Your task to perform on an android device: Go to Android settings Image 0: 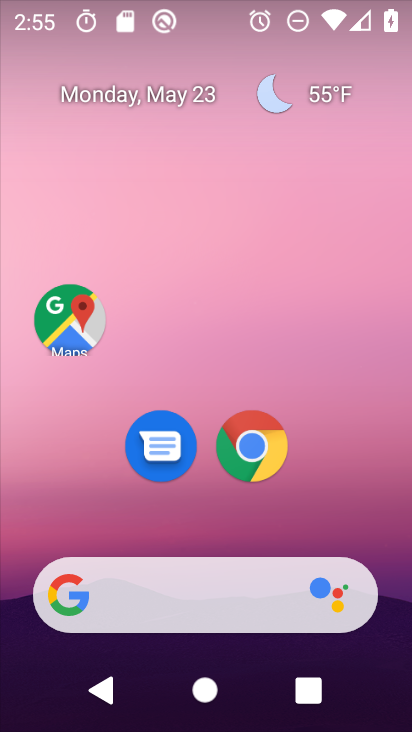
Step 0: drag from (199, 524) to (181, 114)
Your task to perform on an android device: Go to Android settings Image 1: 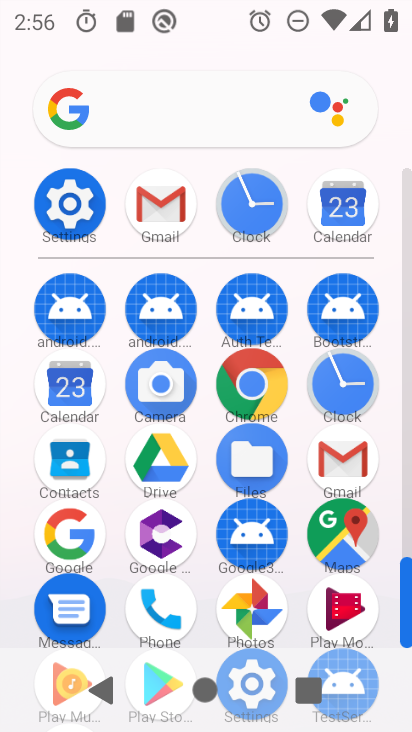
Step 1: click (73, 183)
Your task to perform on an android device: Go to Android settings Image 2: 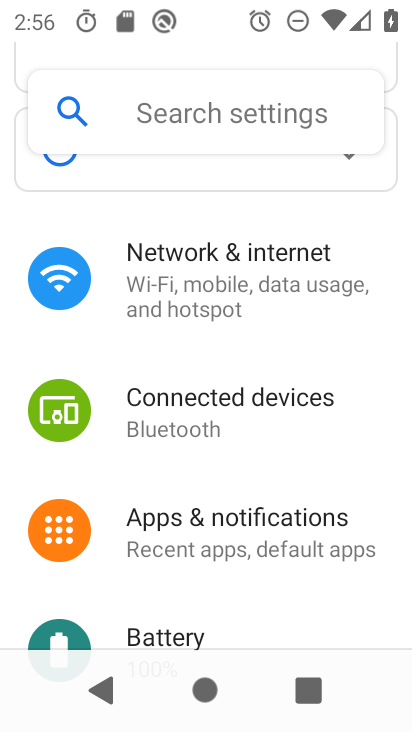
Step 2: task complete